Your task to perform on an android device: see sites visited before in the chrome app Image 0: 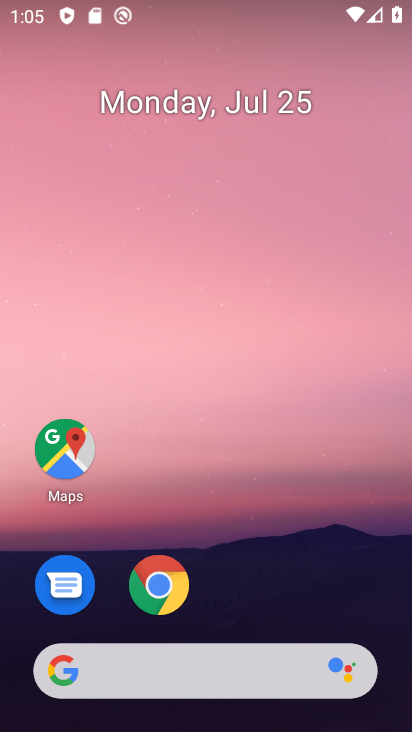
Step 0: click (181, 576)
Your task to perform on an android device: see sites visited before in the chrome app Image 1: 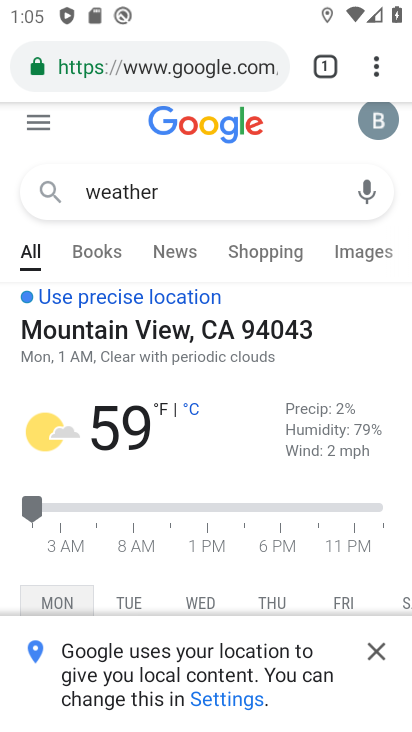
Step 1: task complete